Your task to perform on an android device: Open Google Image 0: 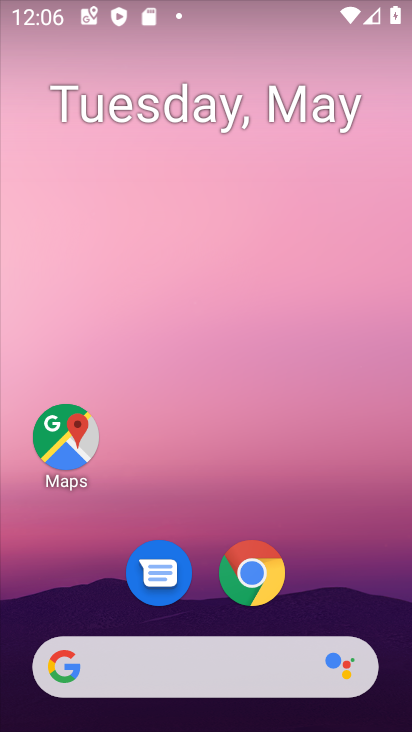
Step 0: drag from (373, 564) to (243, 71)
Your task to perform on an android device: Open Google Image 1: 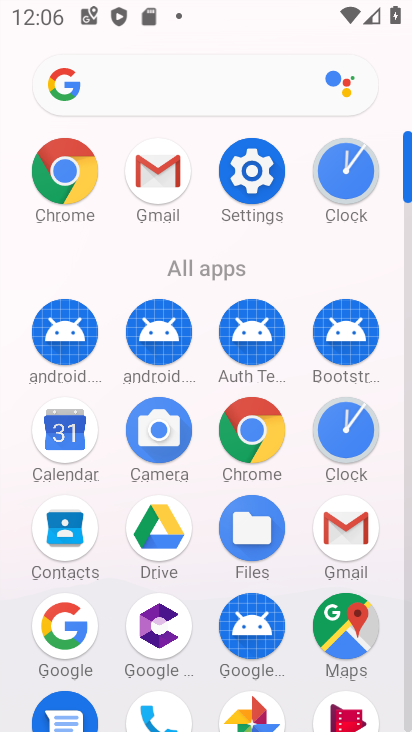
Step 1: drag from (399, 535) to (319, 215)
Your task to perform on an android device: Open Google Image 2: 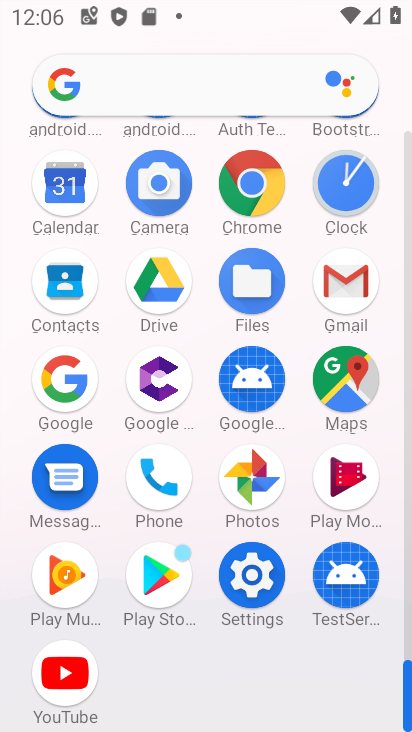
Step 2: drag from (381, 398) to (407, 555)
Your task to perform on an android device: Open Google Image 3: 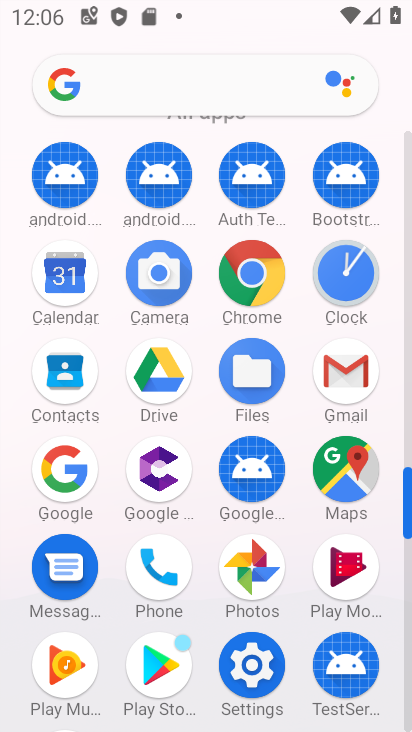
Step 3: drag from (403, 337) to (401, 514)
Your task to perform on an android device: Open Google Image 4: 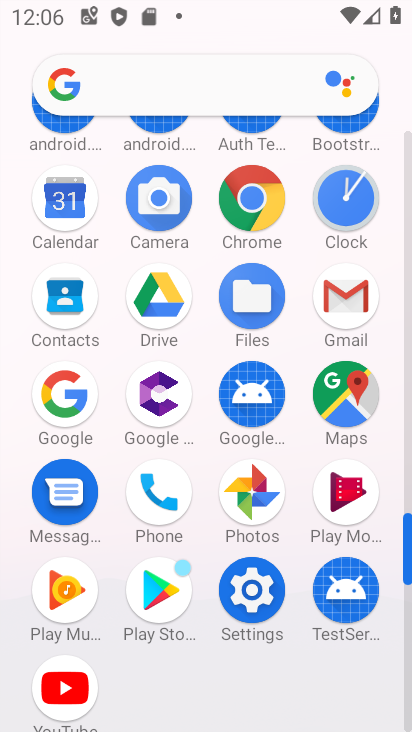
Step 4: click (59, 431)
Your task to perform on an android device: Open Google Image 5: 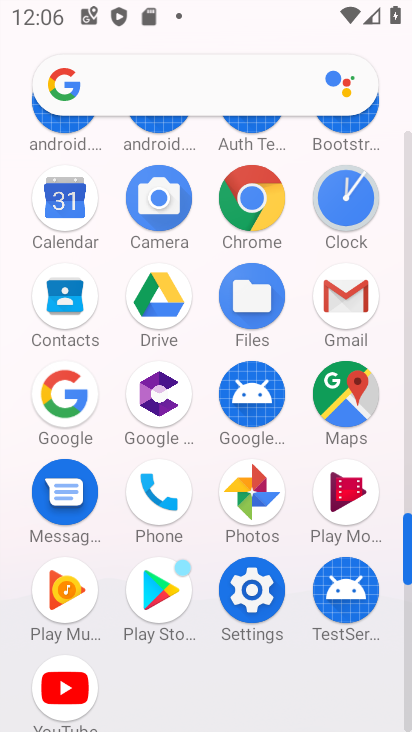
Step 5: click (44, 411)
Your task to perform on an android device: Open Google Image 6: 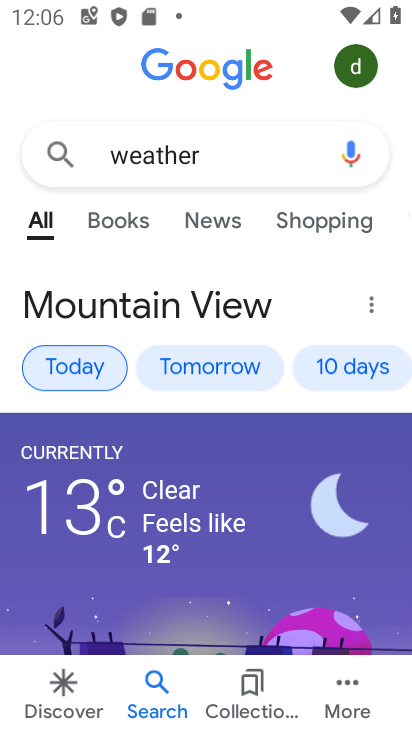
Step 6: task complete